Your task to perform on an android device: What's the weather going to be this weekend? Image 0: 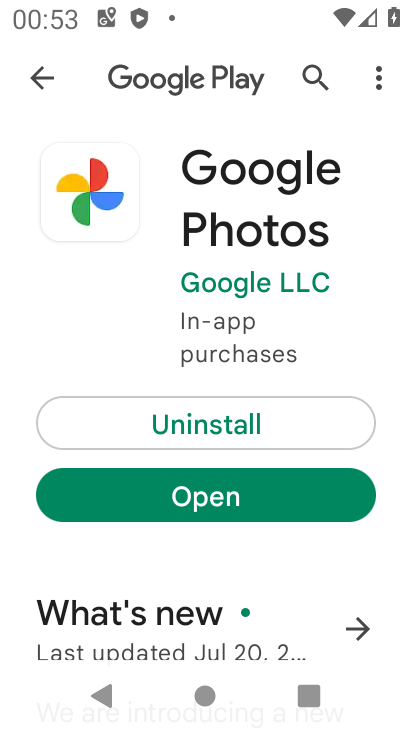
Step 0: press home button
Your task to perform on an android device: What's the weather going to be this weekend? Image 1: 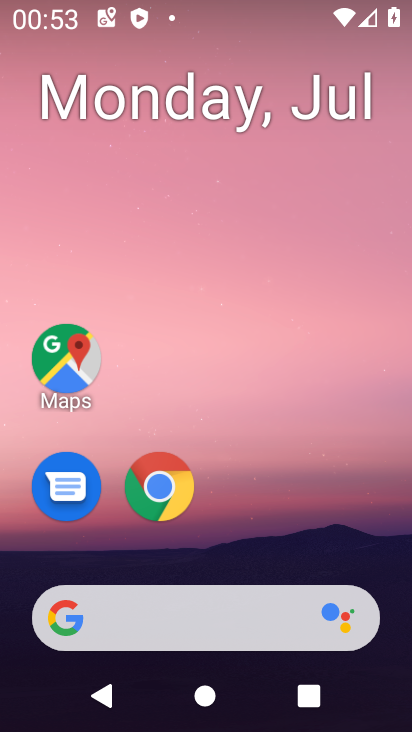
Step 1: click (224, 623)
Your task to perform on an android device: What's the weather going to be this weekend? Image 2: 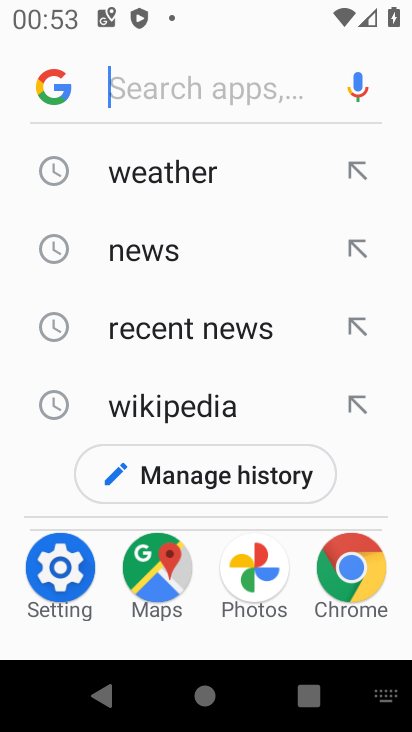
Step 2: click (225, 175)
Your task to perform on an android device: What's the weather going to be this weekend? Image 3: 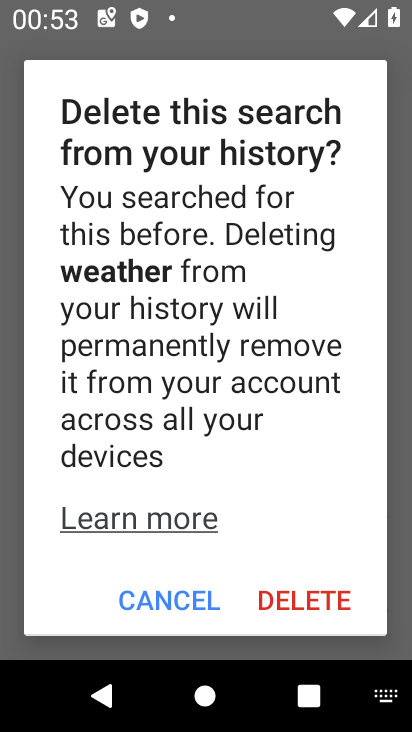
Step 3: click (172, 611)
Your task to perform on an android device: What's the weather going to be this weekend? Image 4: 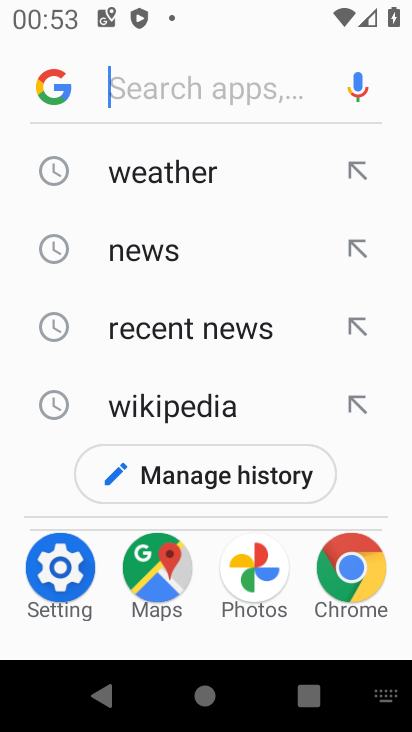
Step 4: click (220, 176)
Your task to perform on an android device: What's the weather going to be this weekend? Image 5: 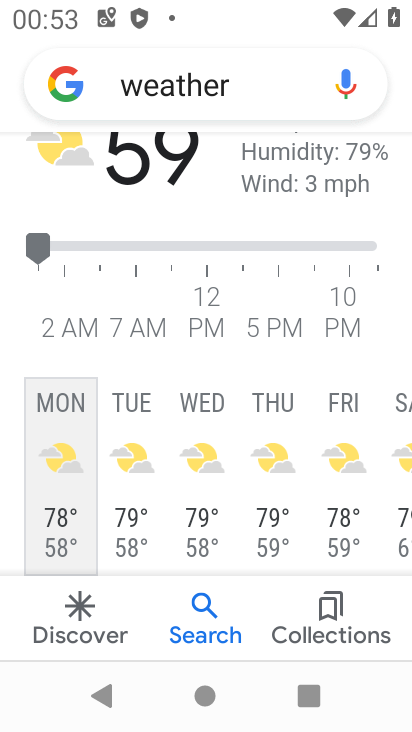
Step 5: drag from (320, 462) to (73, 441)
Your task to perform on an android device: What's the weather going to be this weekend? Image 6: 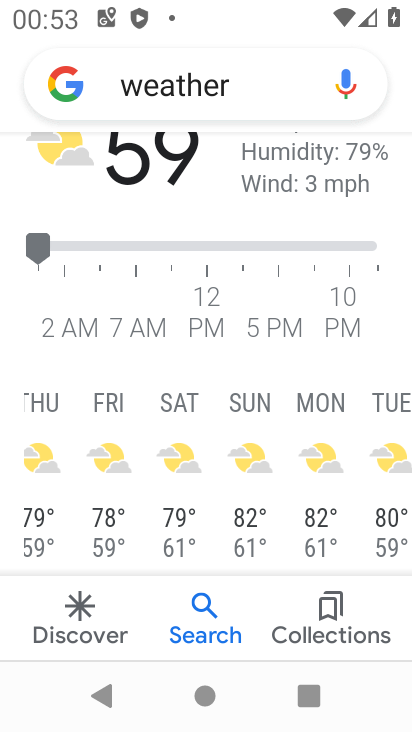
Step 6: click (176, 390)
Your task to perform on an android device: What's the weather going to be this weekend? Image 7: 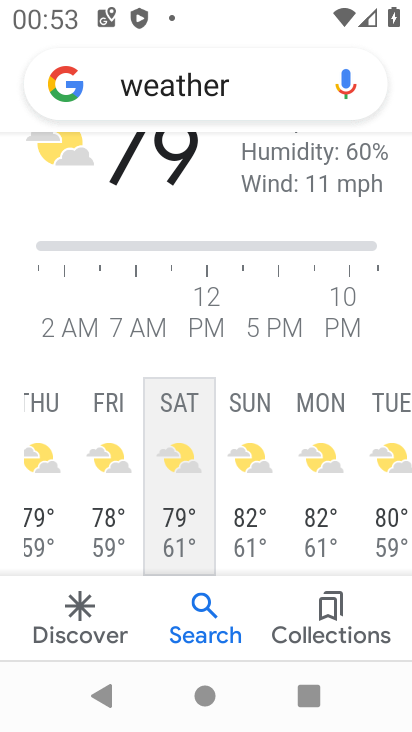
Step 7: task complete